Your task to perform on an android device: Do I have any events tomorrow? Image 0: 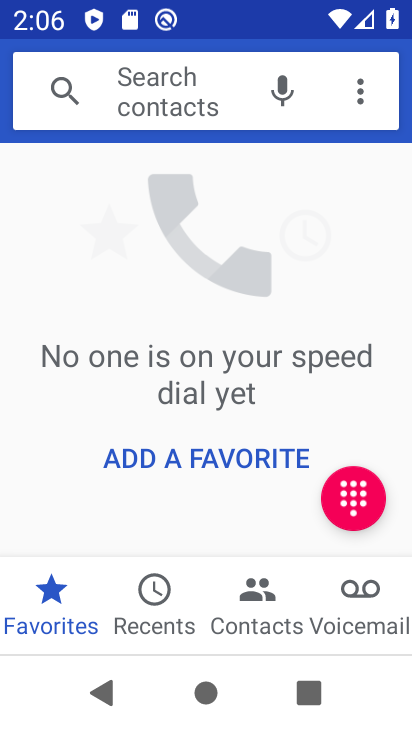
Step 0: press home button
Your task to perform on an android device: Do I have any events tomorrow? Image 1: 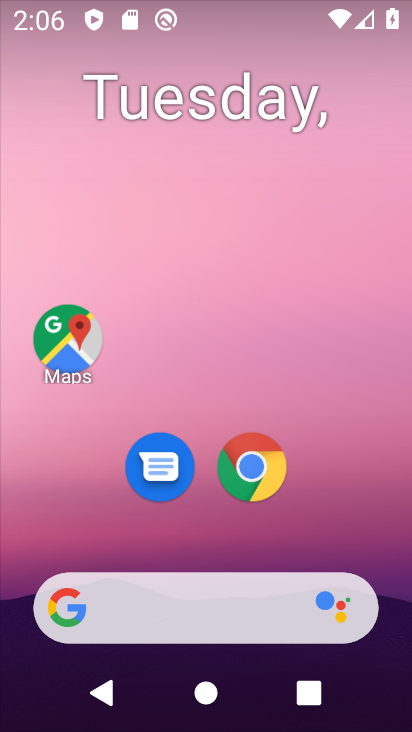
Step 1: drag from (372, 539) to (383, 194)
Your task to perform on an android device: Do I have any events tomorrow? Image 2: 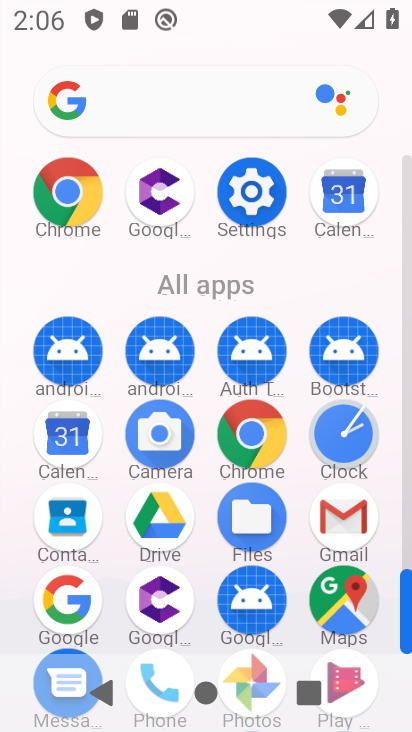
Step 2: click (70, 459)
Your task to perform on an android device: Do I have any events tomorrow? Image 3: 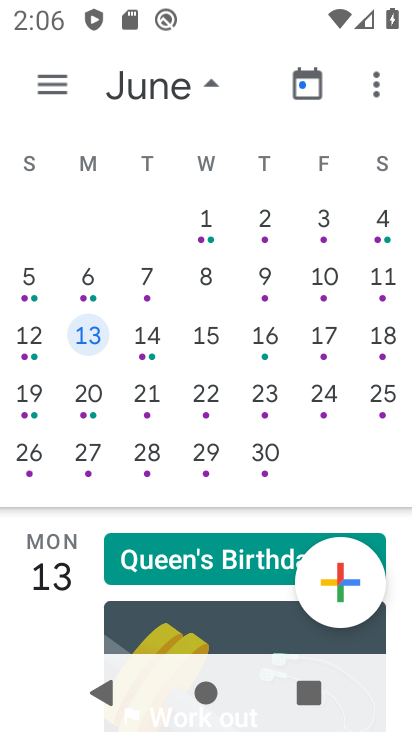
Step 3: click (206, 232)
Your task to perform on an android device: Do I have any events tomorrow? Image 4: 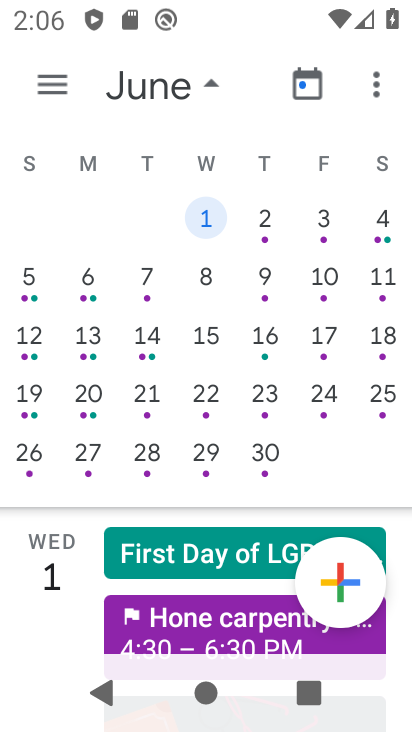
Step 4: drag from (233, 521) to (260, 214)
Your task to perform on an android device: Do I have any events tomorrow? Image 5: 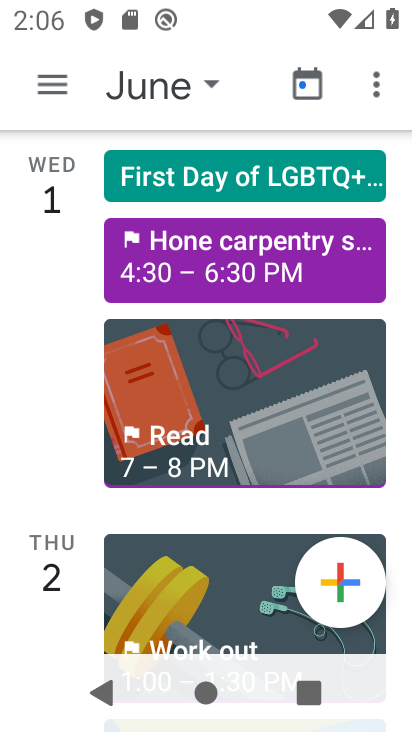
Step 5: click (291, 323)
Your task to perform on an android device: Do I have any events tomorrow? Image 6: 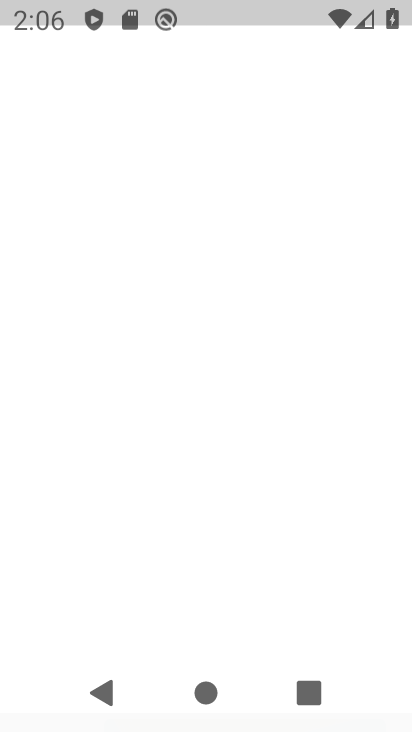
Step 6: click (310, 270)
Your task to perform on an android device: Do I have any events tomorrow? Image 7: 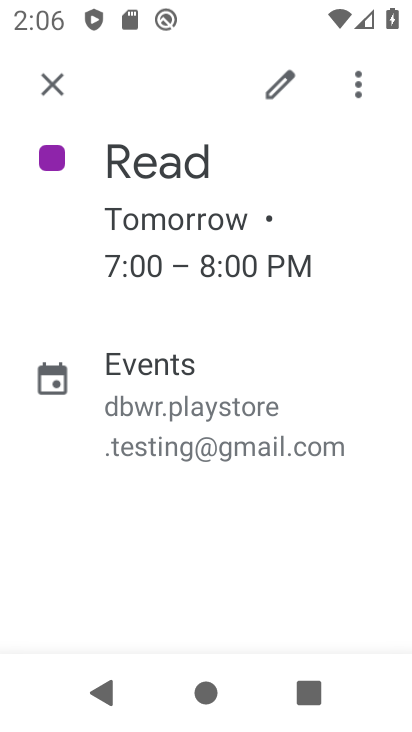
Step 7: task complete